Your task to perform on an android device: stop showing notifications on the lock screen Image 0: 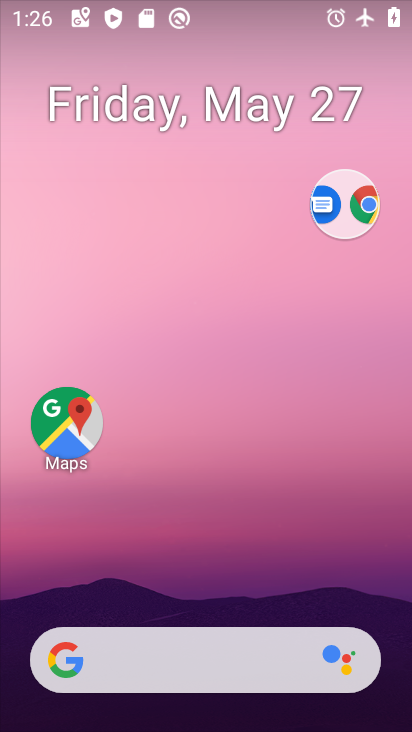
Step 0: drag from (256, 667) to (238, 33)
Your task to perform on an android device: stop showing notifications on the lock screen Image 1: 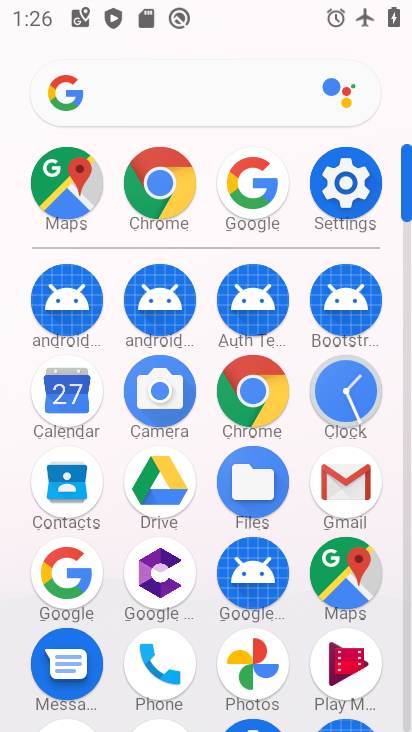
Step 1: click (353, 201)
Your task to perform on an android device: stop showing notifications on the lock screen Image 2: 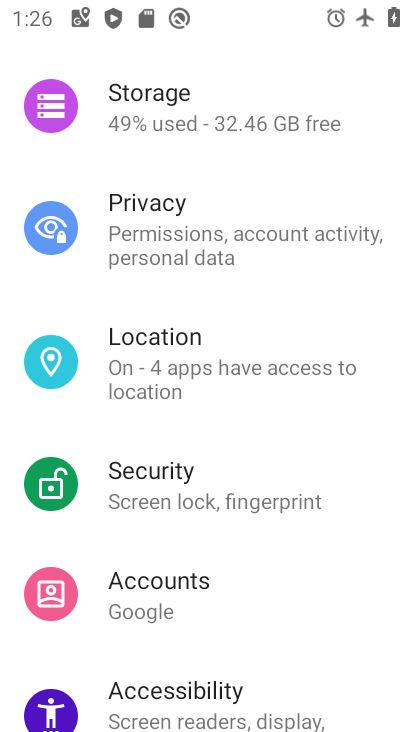
Step 2: drag from (232, 230) to (200, 719)
Your task to perform on an android device: stop showing notifications on the lock screen Image 3: 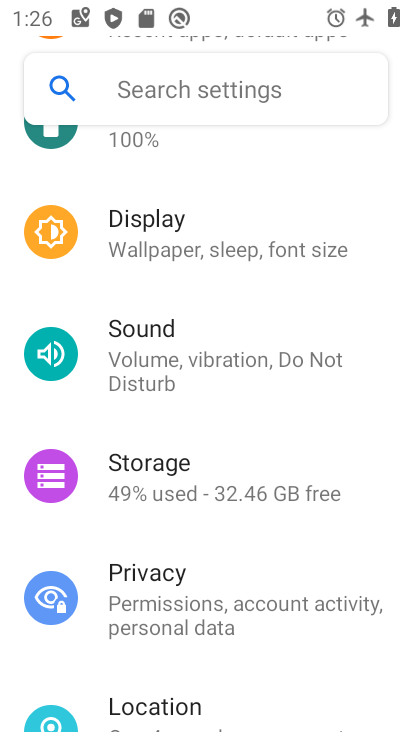
Step 3: drag from (162, 388) to (162, 709)
Your task to perform on an android device: stop showing notifications on the lock screen Image 4: 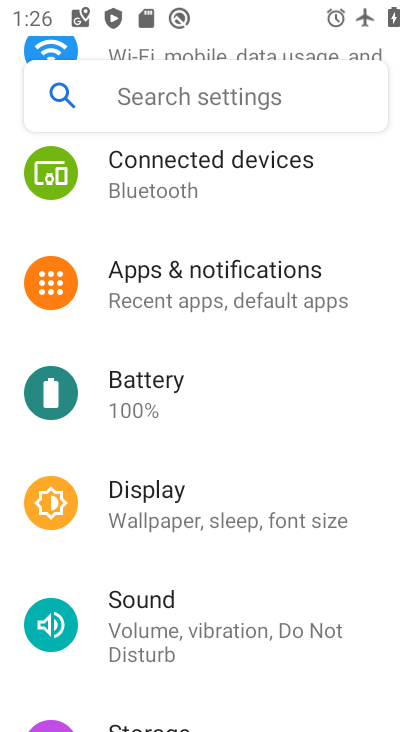
Step 4: click (231, 296)
Your task to perform on an android device: stop showing notifications on the lock screen Image 5: 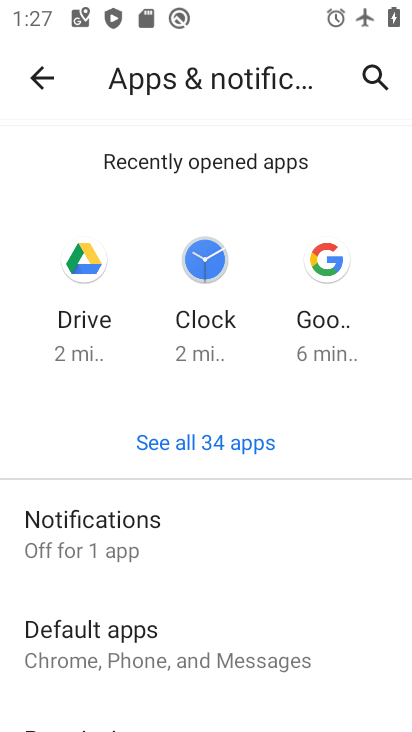
Step 5: drag from (145, 433) to (134, 121)
Your task to perform on an android device: stop showing notifications on the lock screen Image 6: 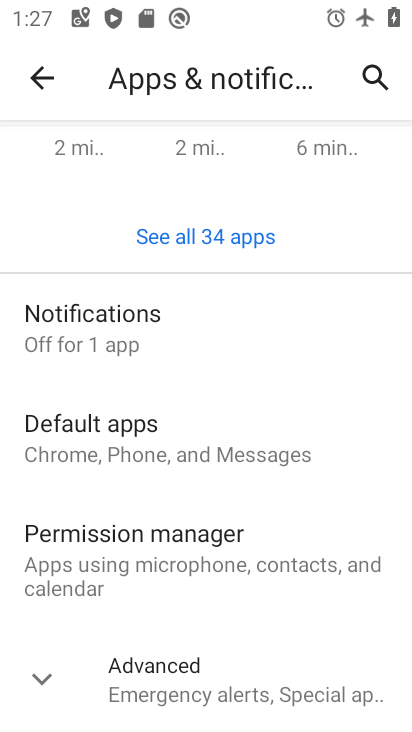
Step 6: click (182, 348)
Your task to perform on an android device: stop showing notifications on the lock screen Image 7: 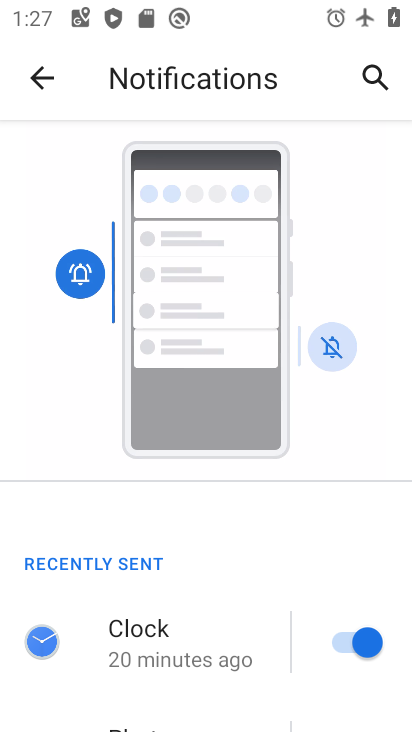
Step 7: drag from (165, 597) to (168, 253)
Your task to perform on an android device: stop showing notifications on the lock screen Image 8: 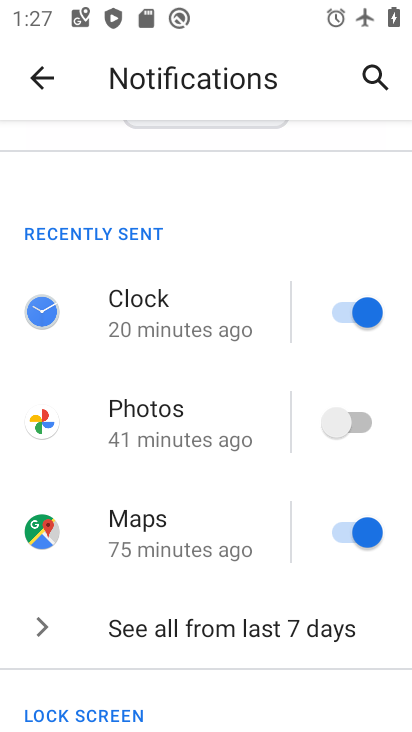
Step 8: drag from (211, 555) to (232, 139)
Your task to perform on an android device: stop showing notifications on the lock screen Image 9: 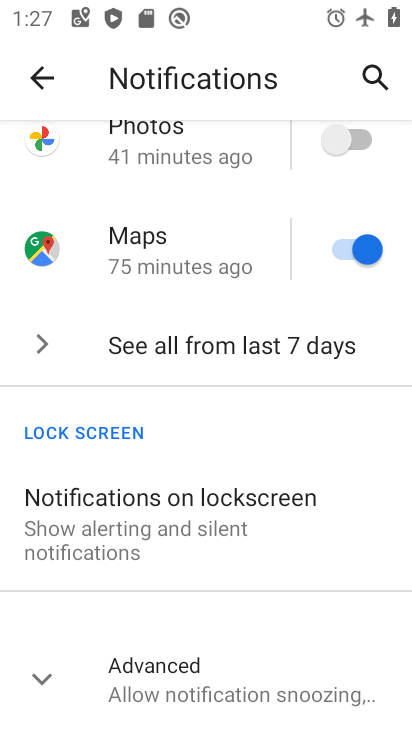
Step 9: click (229, 521)
Your task to perform on an android device: stop showing notifications on the lock screen Image 10: 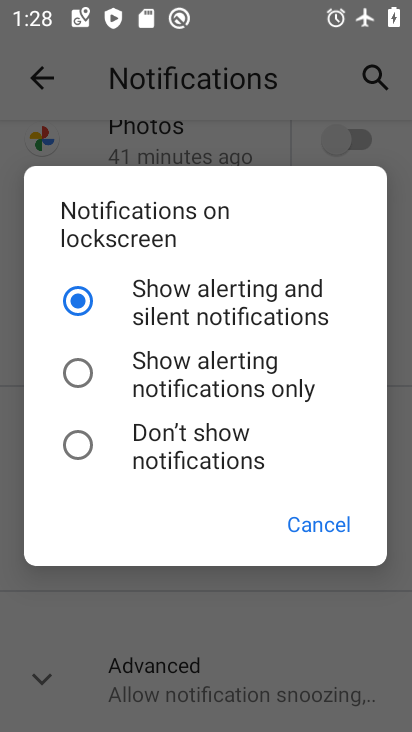
Step 10: click (153, 456)
Your task to perform on an android device: stop showing notifications on the lock screen Image 11: 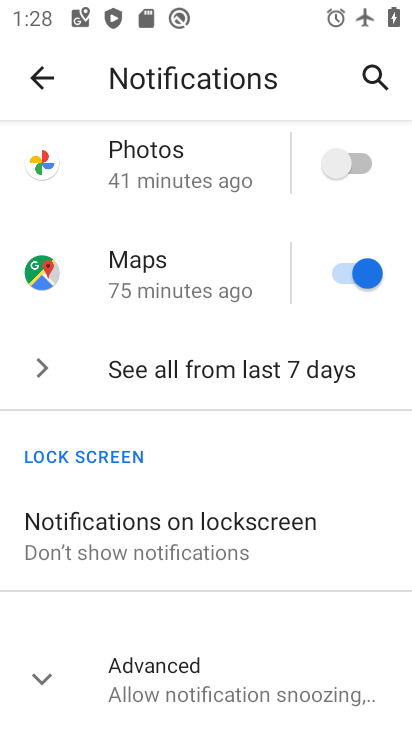
Step 11: task complete